Your task to perform on an android device: Go to network settings Image 0: 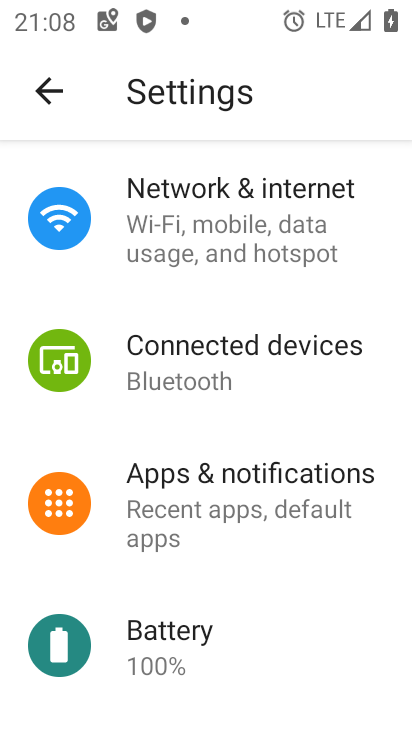
Step 0: press home button
Your task to perform on an android device: Go to network settings Image 1: 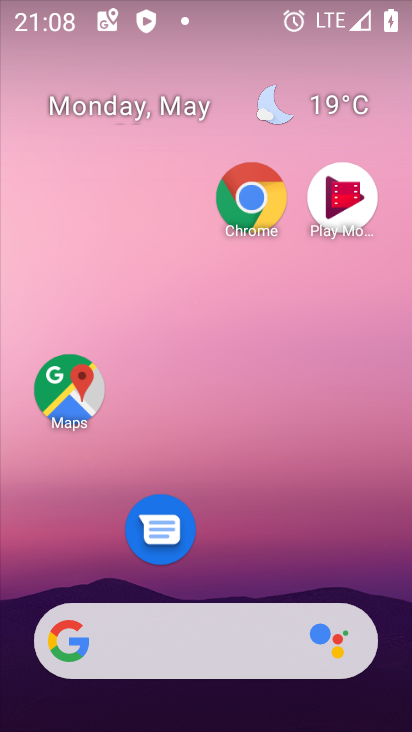
Step 1: drag from (233, 569) to (206, 45)
Your task to perform on an android device: Go to network settings Image 2: 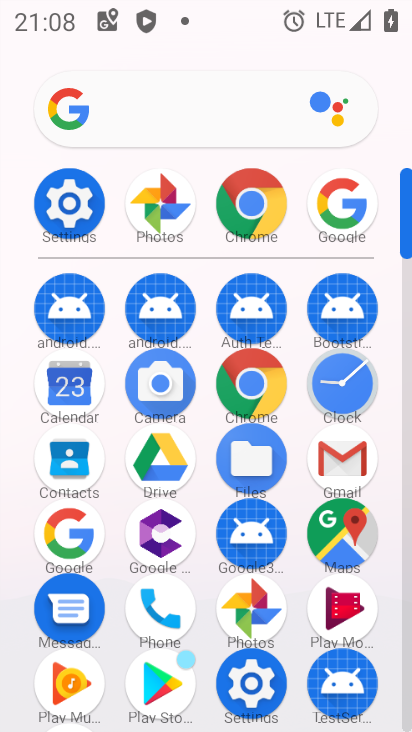
Step 2: click (61, 212)
Your task to perform on an android device: Go to network settings Image 3: 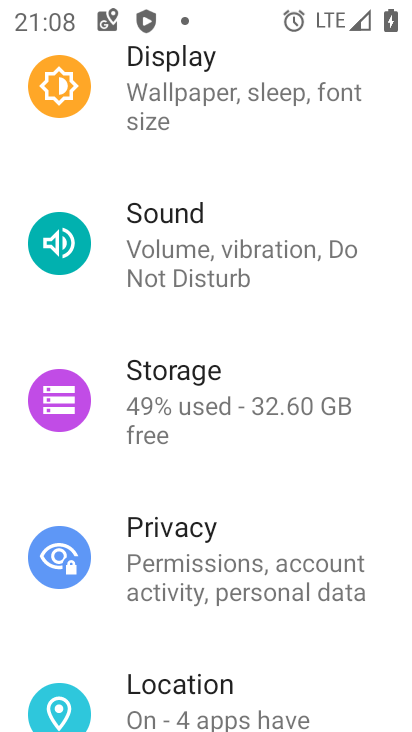
Step 3: drag from (251, 168) to (290, 672)
Your task to perform on an android device: Go to network settings Image 4: 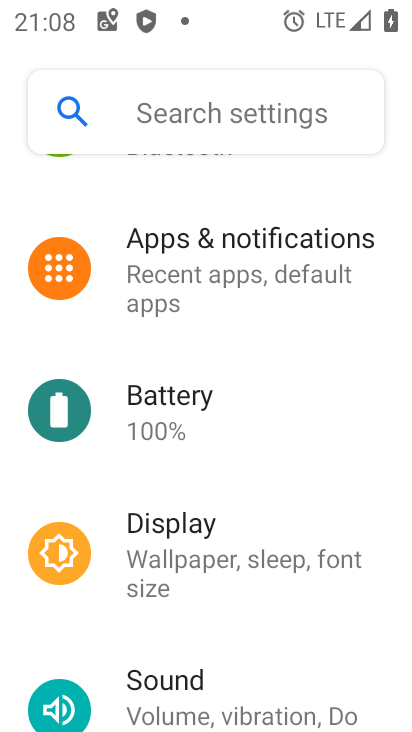
Step 4: drag from (206, 376) to (199, 727)
Your task to perform on an android device: Go to network settings Image 5: 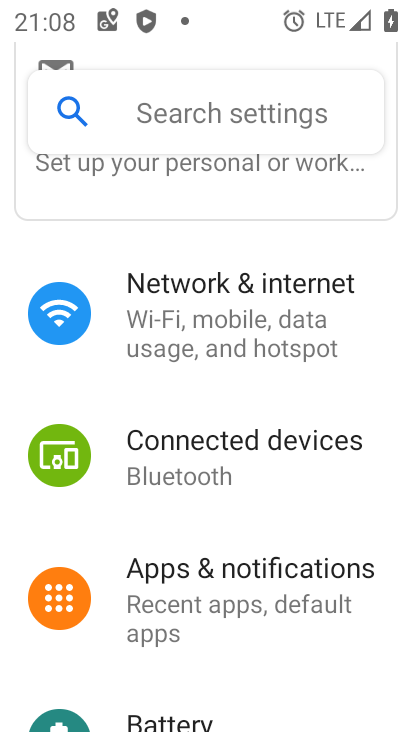
Step 5: click (175, 330)
Your task to perform on an android device: Go to network settings Image 6: 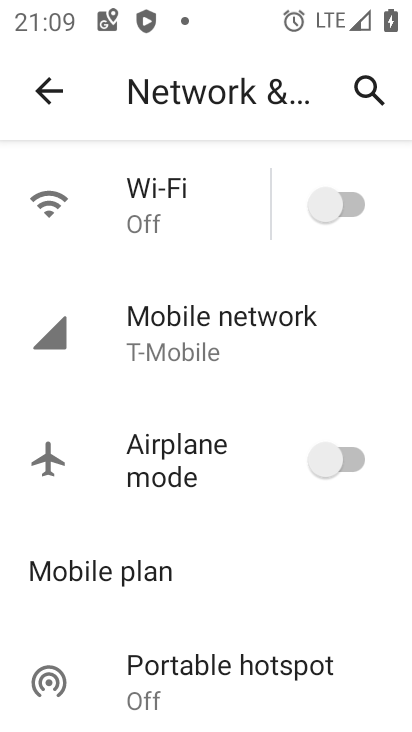
Step 6: task complete